Your task to perform on an android device: turn off location history Image 0: 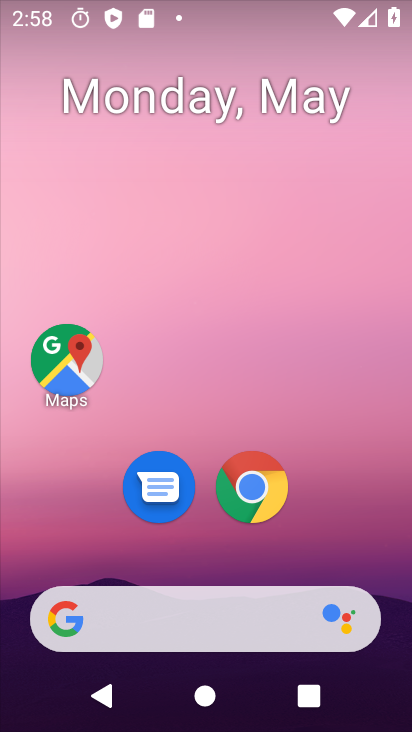
Step 0: drag from (220, 526) to (254, 144)
Your task to perform on an android device: turn off location history Image 1: 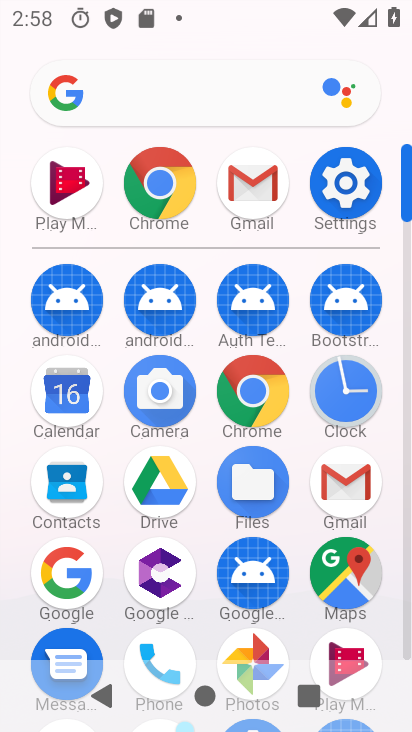
Step 1: click (344, 191)
Your task to perform on an android device: turn off location history Image 2: 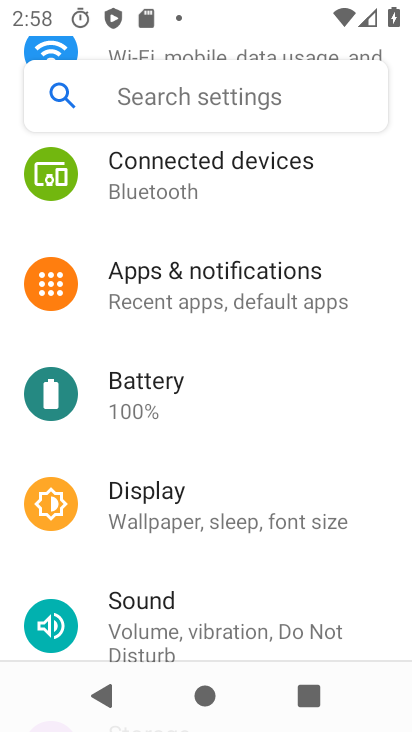
Step 2: drag from (178, 521) to (234, 222)
Your task to perform on an android device: turn off location history Image 3: 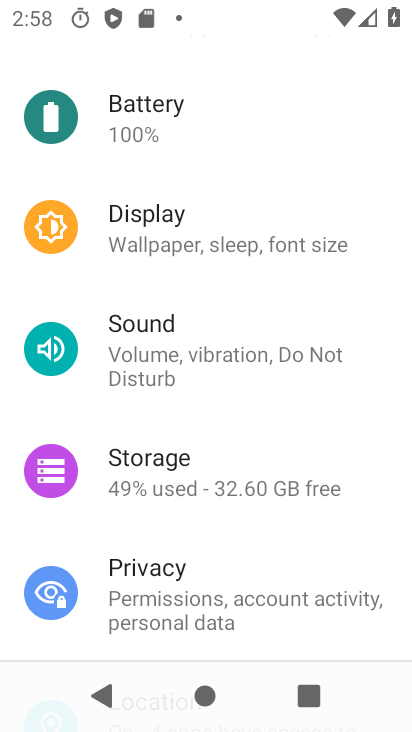
Step 3: drag from (209, 503) to (248, 318)
Your task to perform on an android device: turn off location history Image 4: 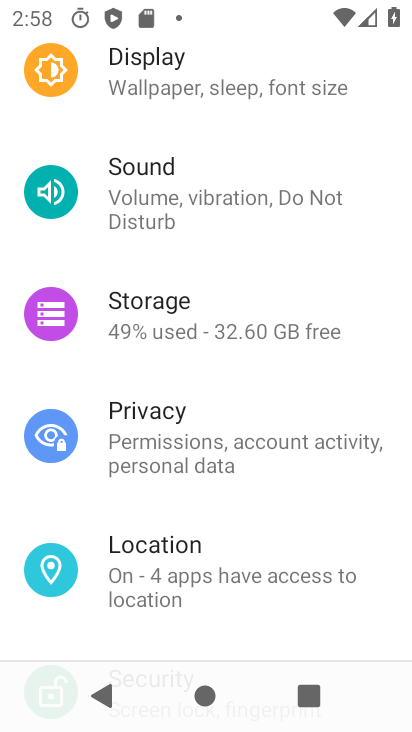
Step 4: click (169, 581)
Your task to perform on an android device: turn off location history Image 5: 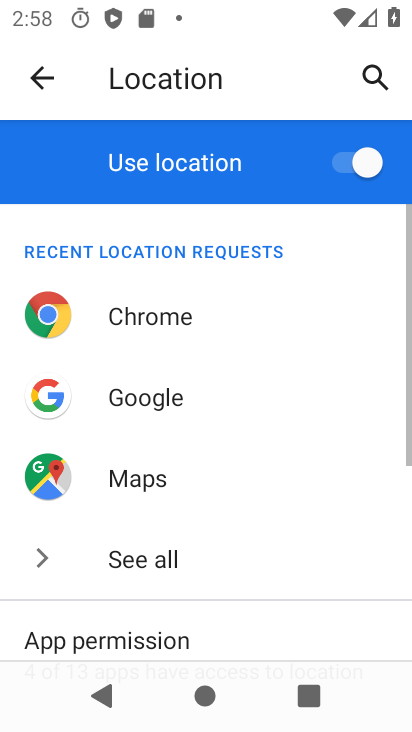
Step 5: drag from (163, 605) to (222, 348)
Your task to perform on an android device: turn off location history Image 6: 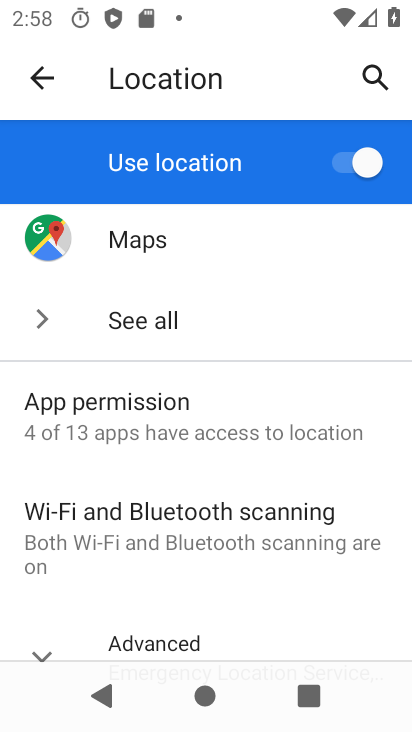
Step 6: drag from (215, 504) to (247, 244)
Your task to perform on an android device: turn off location history Image 7: 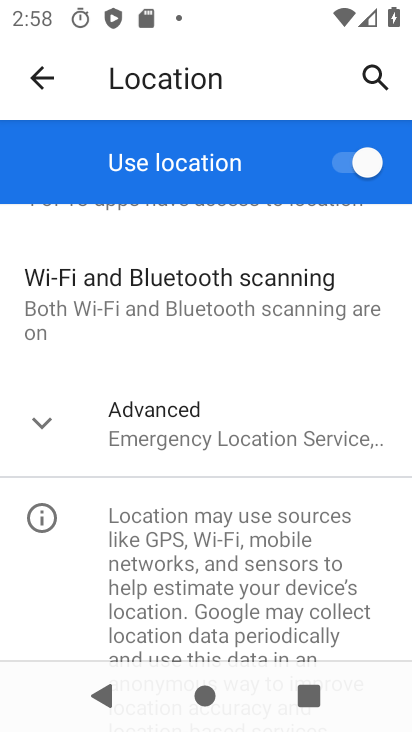
Step 7: click (209, 439)
Your task to perform on an android device: turn off location history Image 8: 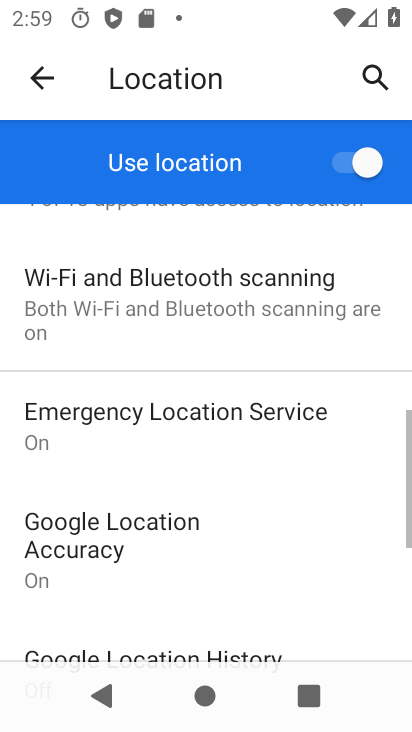
Step 8: drag from (192, 615) to (232, 398)
Your task to perform on an android device: turn off location history Image 9: 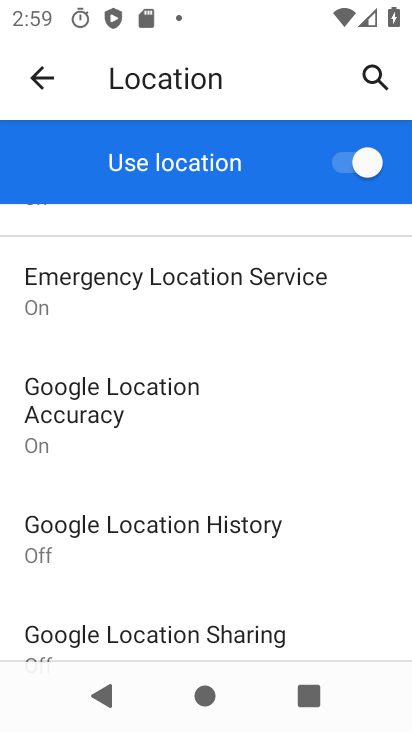
Step 9: drag from (200, 544) to (229, 374)
Your task to perform on an android device: turn off location history Image 10: 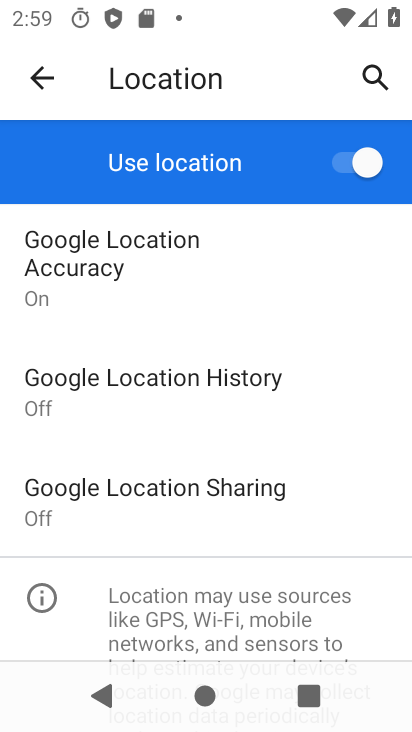
Step 10: drag from (234, 529) to (244, 476)
Your task to perform on an android device: turn off location history Image 11: 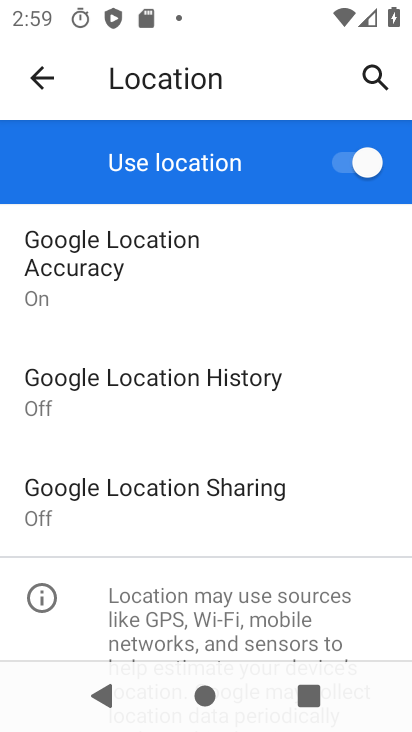
Step 11: click (215, 397)
Your task to perform on an android device: turn off location history Image 12: 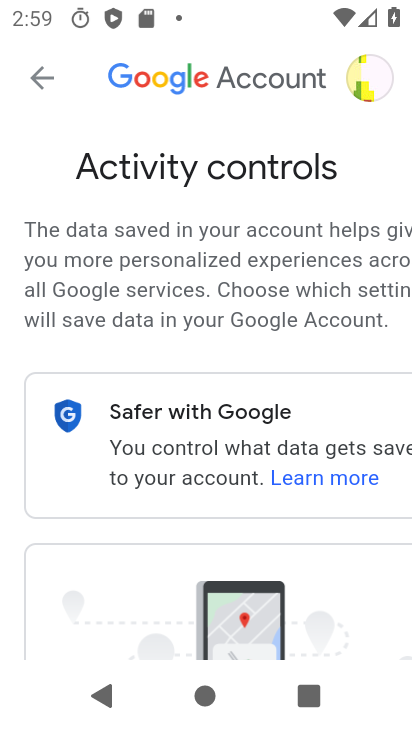
Step 12: drag from (231, 490) to (255, 219)
Your task to perform on an android device: turn off location history Image 13: 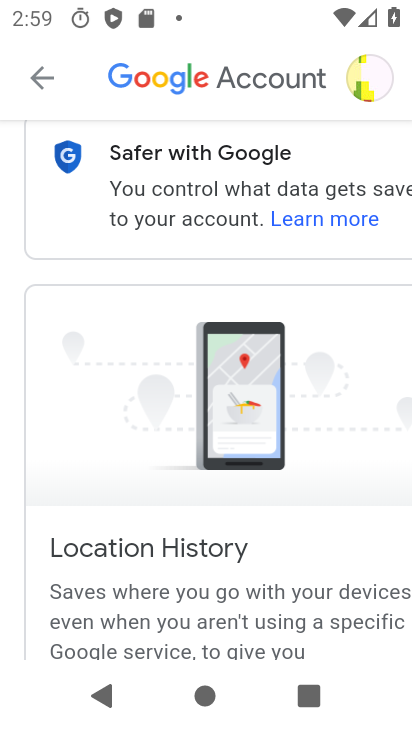
Step 13: drag from (269, 490) to (307, 174)
Your task to perform on an android device: turn off location history Image 14: 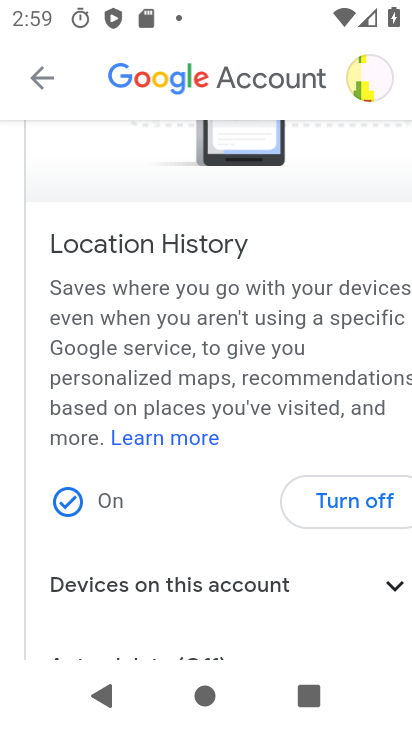
Step 14: click (335, 495)
Your task to perform on an android device: turn off location history Image 15: 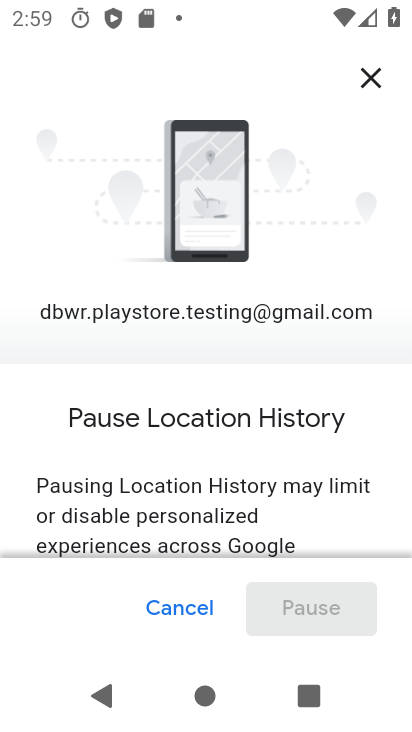
Step 15: drag from (246, 513) to (282, 115)
Your task to perform on an android device: turn off location history Image 16: 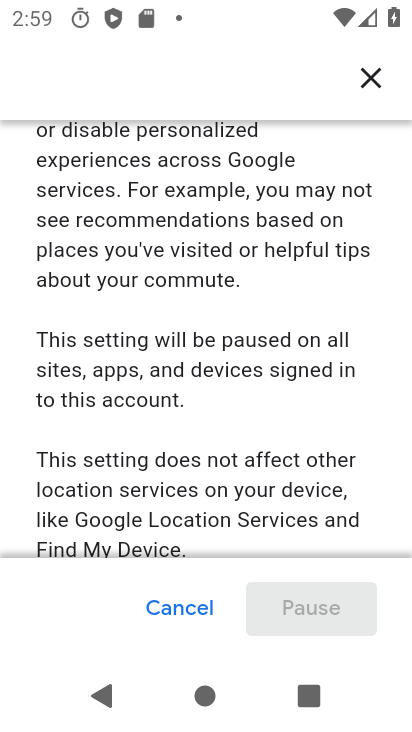
Step 16: drag from (257, 190) to (291, 13)
Your task to perform on an android device: turn off location history Image 17: 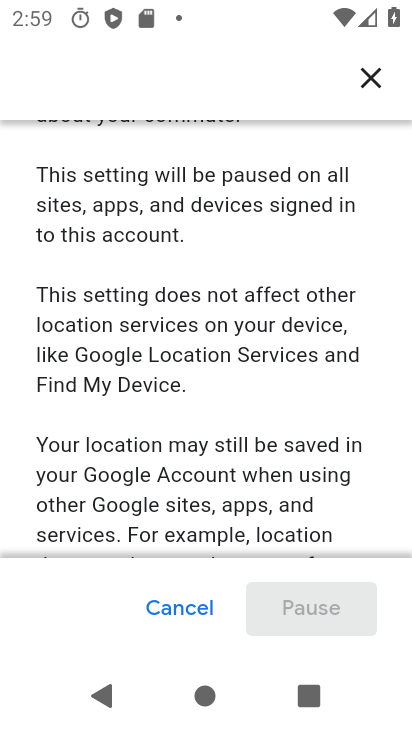
Step 17: drag from (239, 389) to (289, 63)
Your task to perform on an android device: turn off location history Image 18: 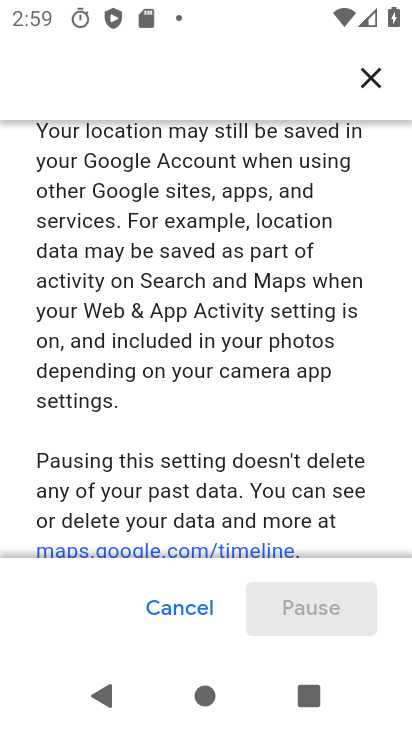
Step 18: drag from (267, 491) to (339, 65)
Your task to perform on an android device: turn off location history Image 19: 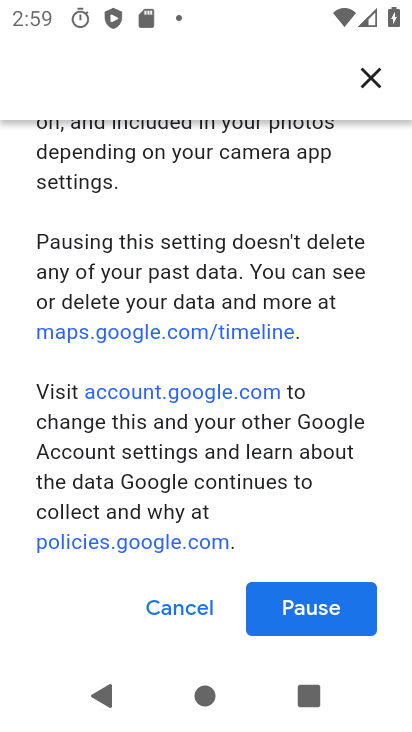
Step 19: click (310, 621)
Your task to perform on an android device: turn off location history Image 20: 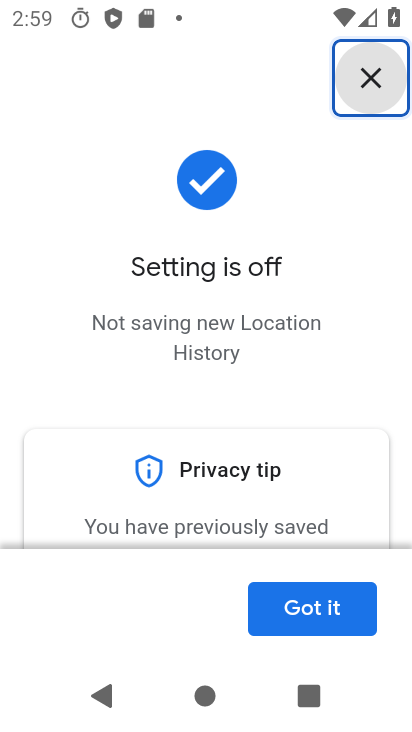
Step 20: click (290, 627)
Your task to perform on an android device: turn off location history Image 21: 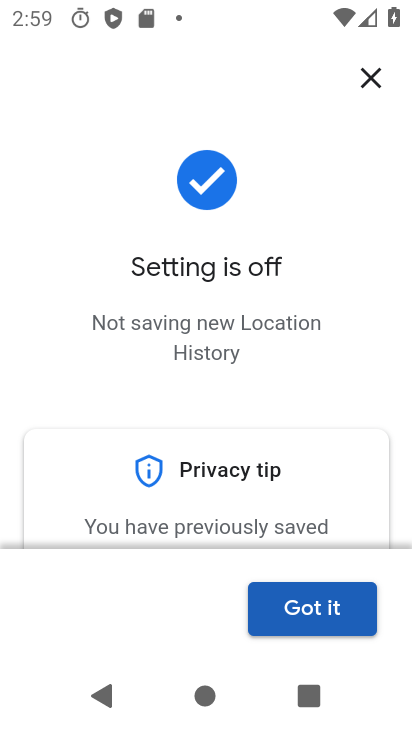
Step 21: click (289, 620)
Your task to perform on an android device: turn off location history Image 22: 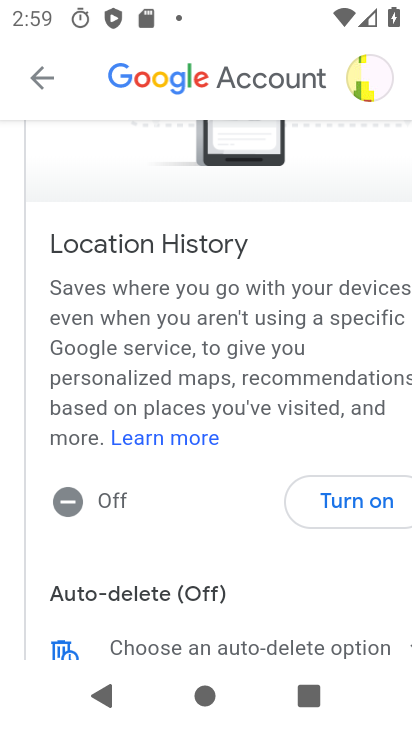
Step 22: task complete